Your task to perform on an android device: change timer sound Image 0: 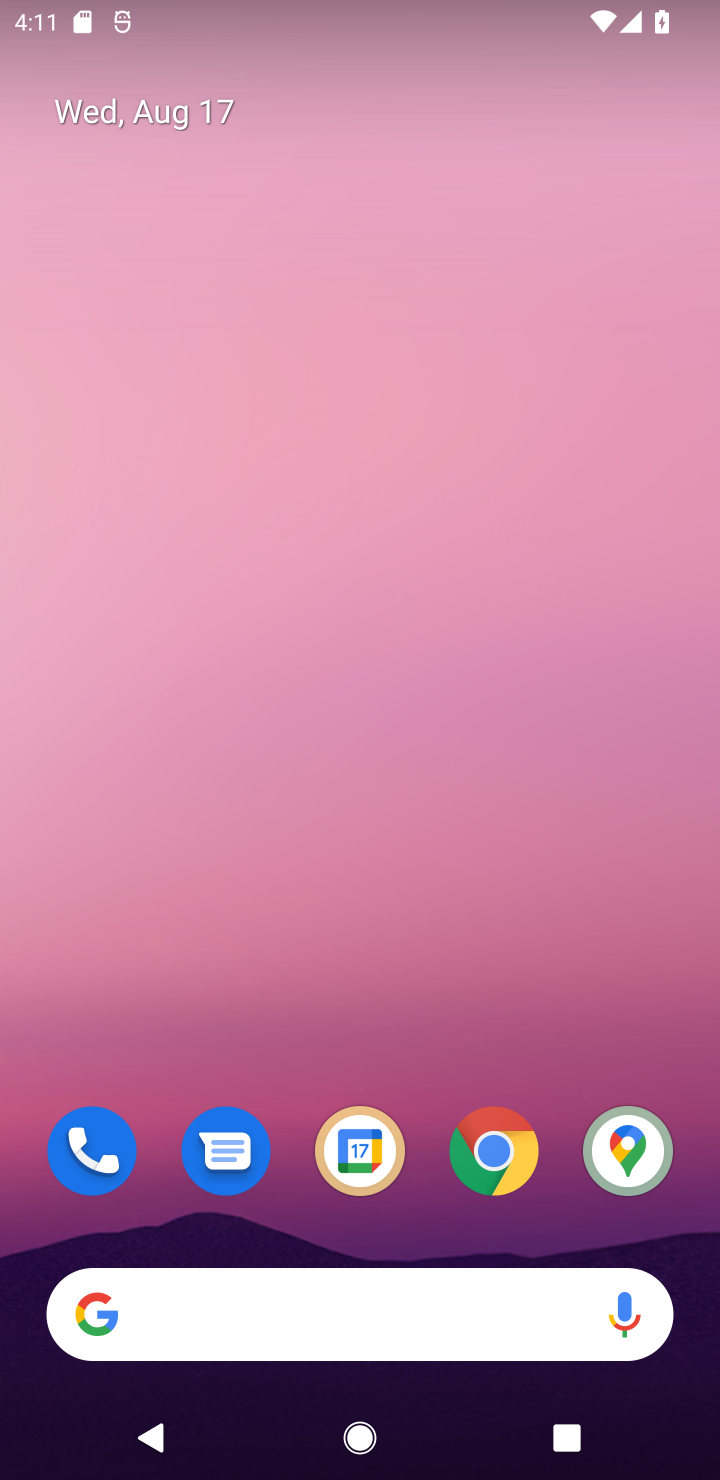
Step 0: drag from (435, 1245) to (373, 399)
Your task to perform on an android device: change timer sound Image 1: 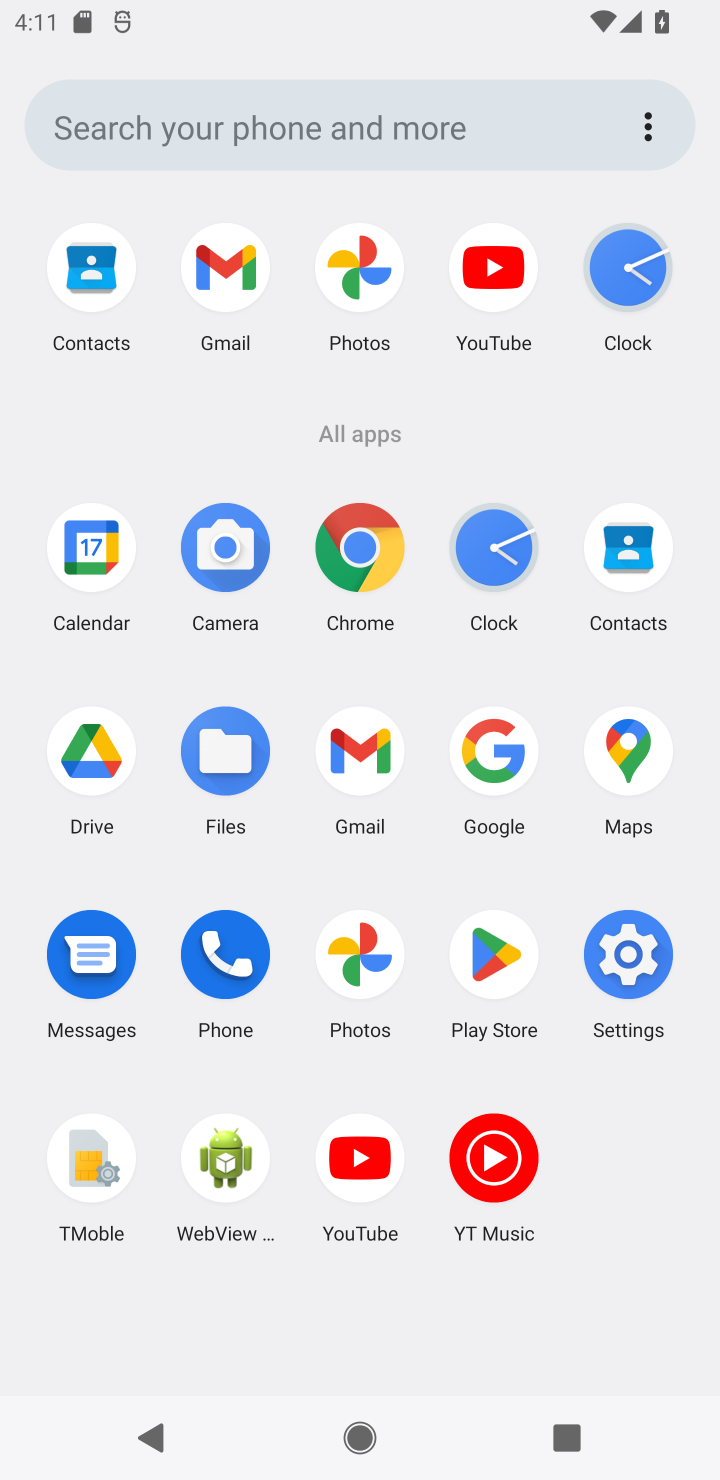
Step 1: click (480, 589)
Your task to perform on an android device: change timer sound Image 2: 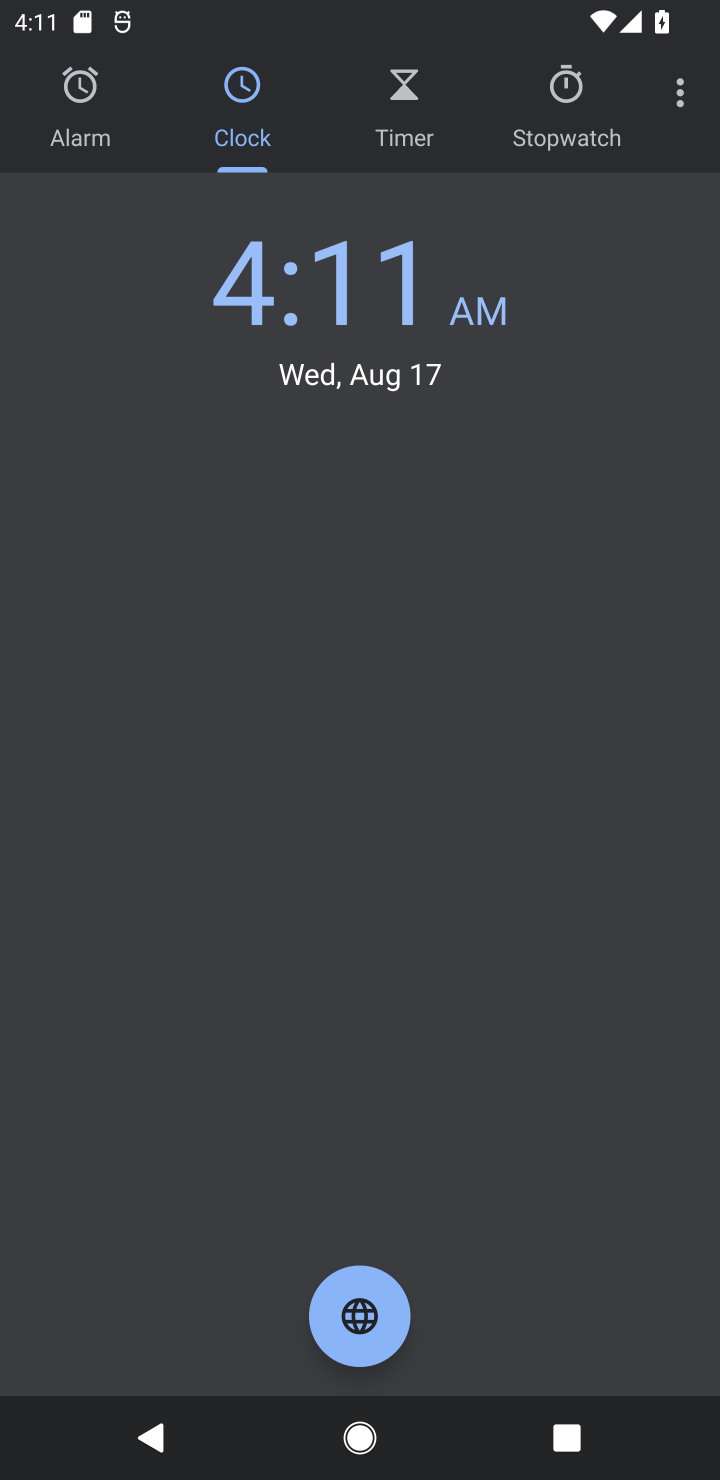
Step 2: click (400, 109)
Your task to perform on an android device: change timer sound Image 3: 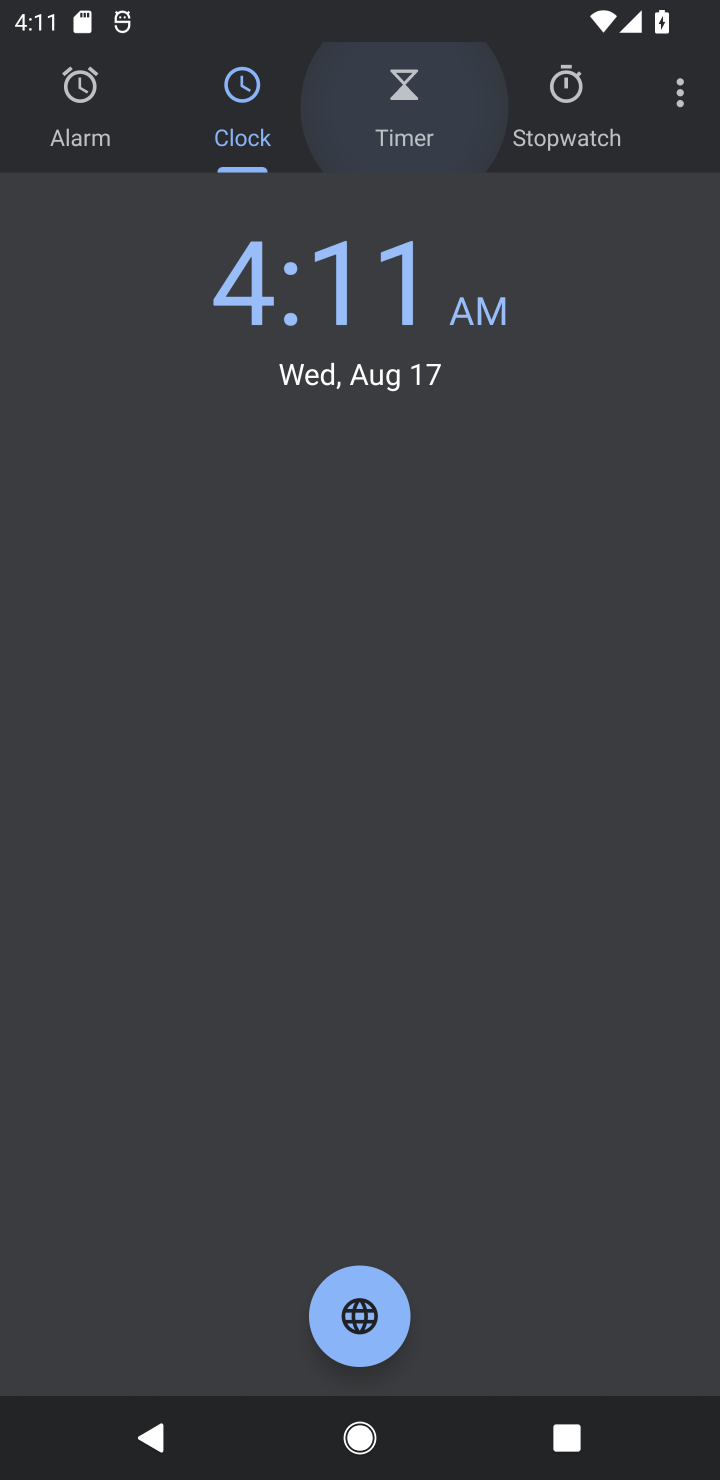
Step 3: click (689, 98)
Your task to perform on an android device: change timer sound Image 4: 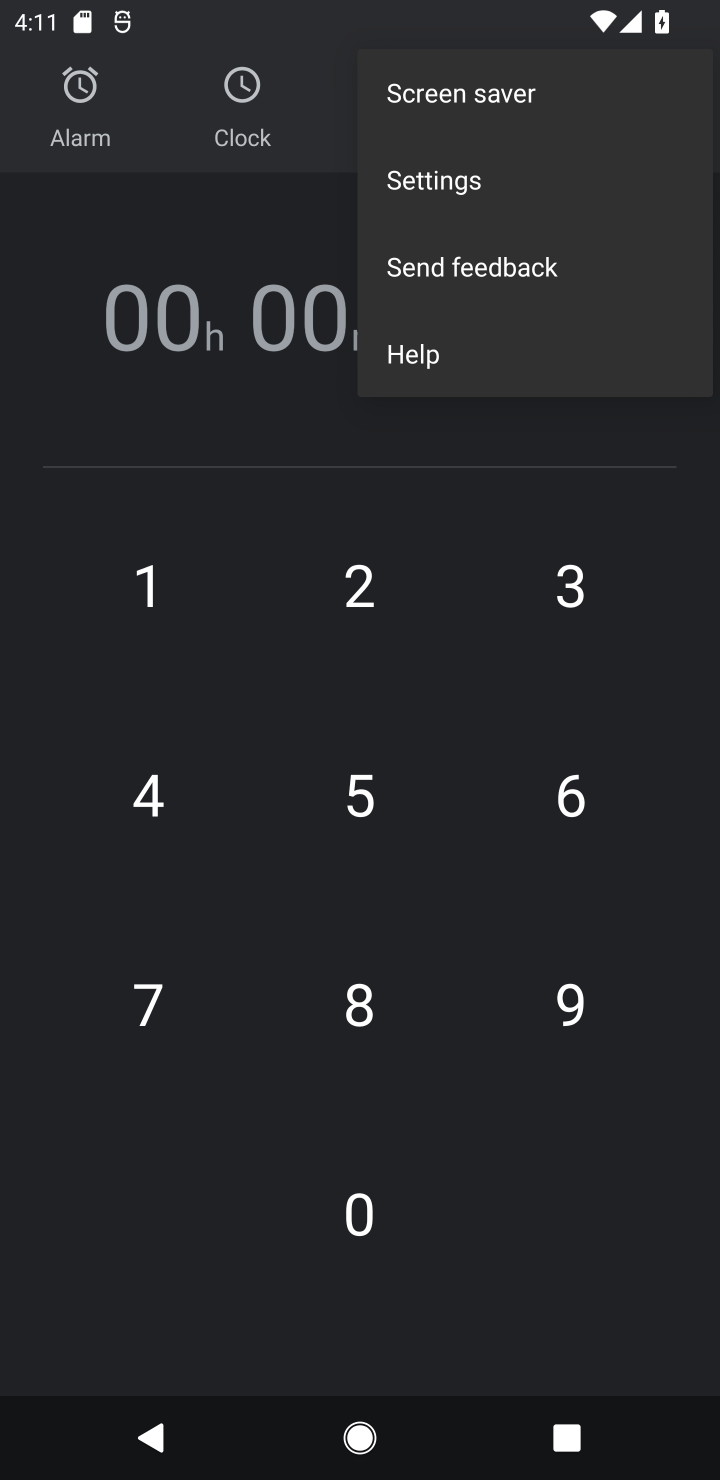
Step 4: click (474, 200)
Your task to perform on an android device: change timer sound Image 5: 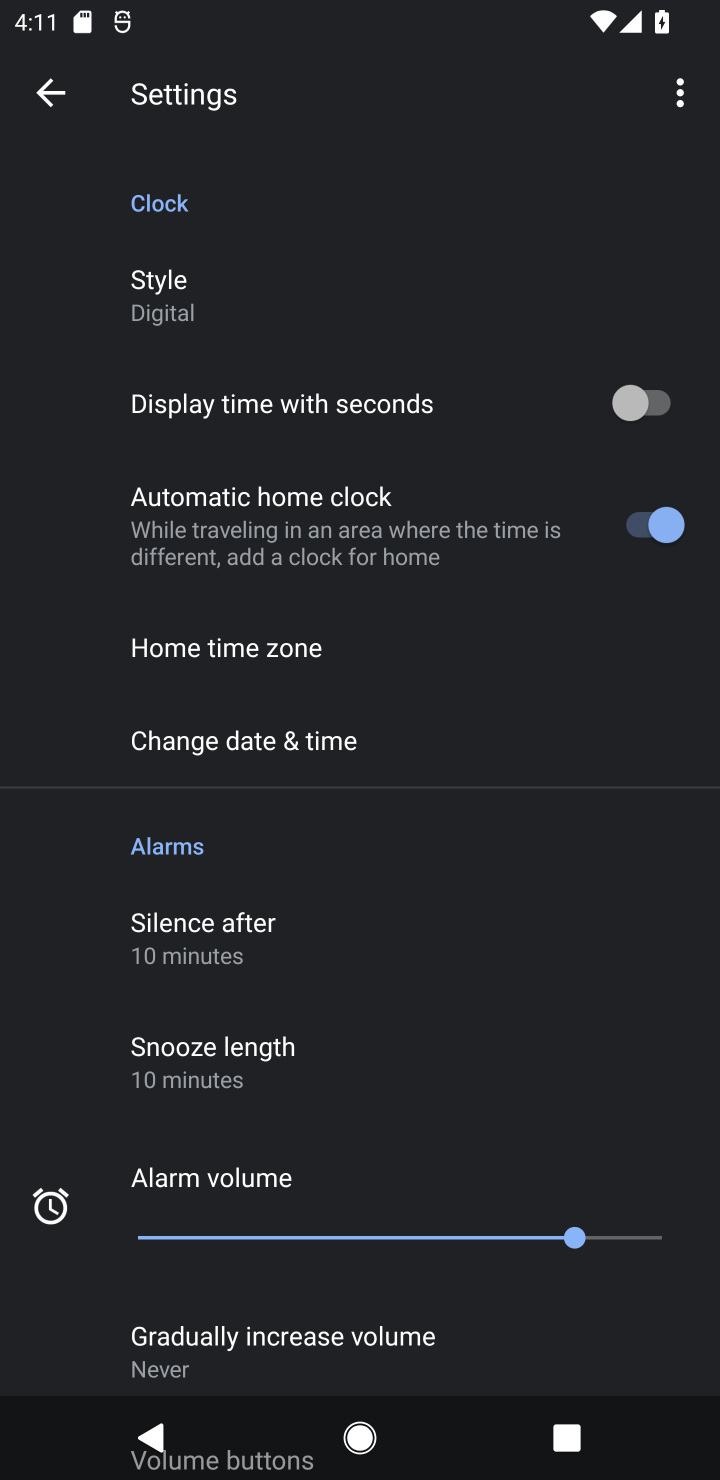
Step 5: drag from (266, 1124) to (306, 520)
Your task to perform on an android device: change timer sound Image 6: 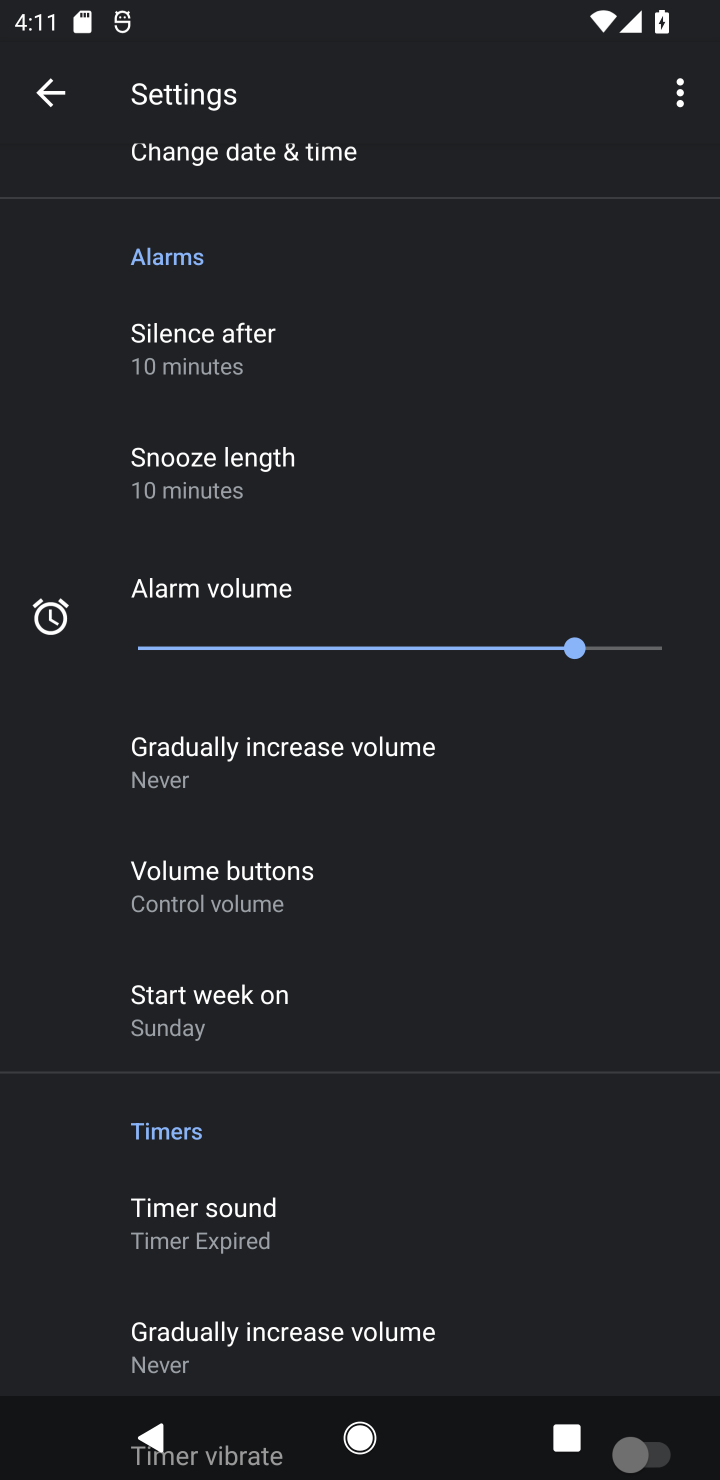
Step 6: click (196, 1189)
Your task to perform on an android device: change timer sound Image 7: 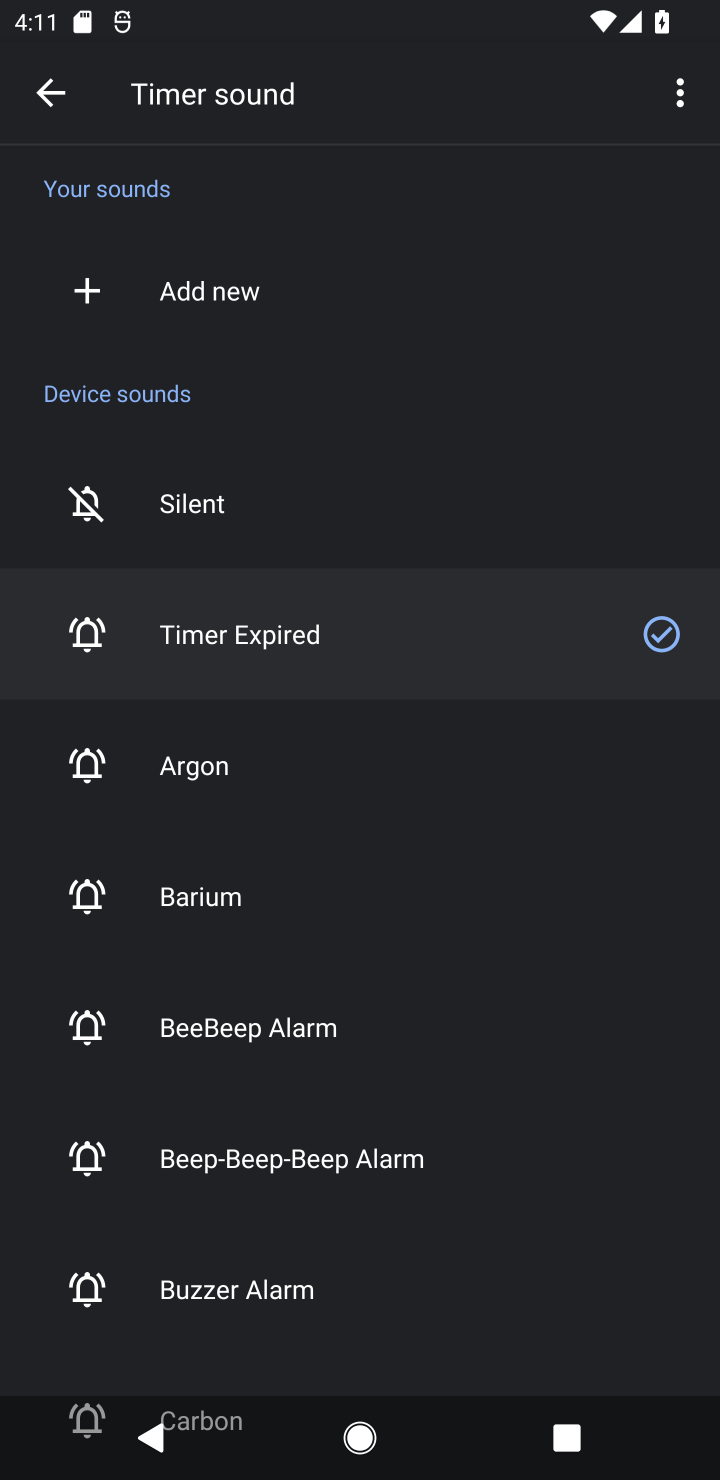
Step 7: click (407, 780)
Your task to perform on an android device: change timer sound Image 8: 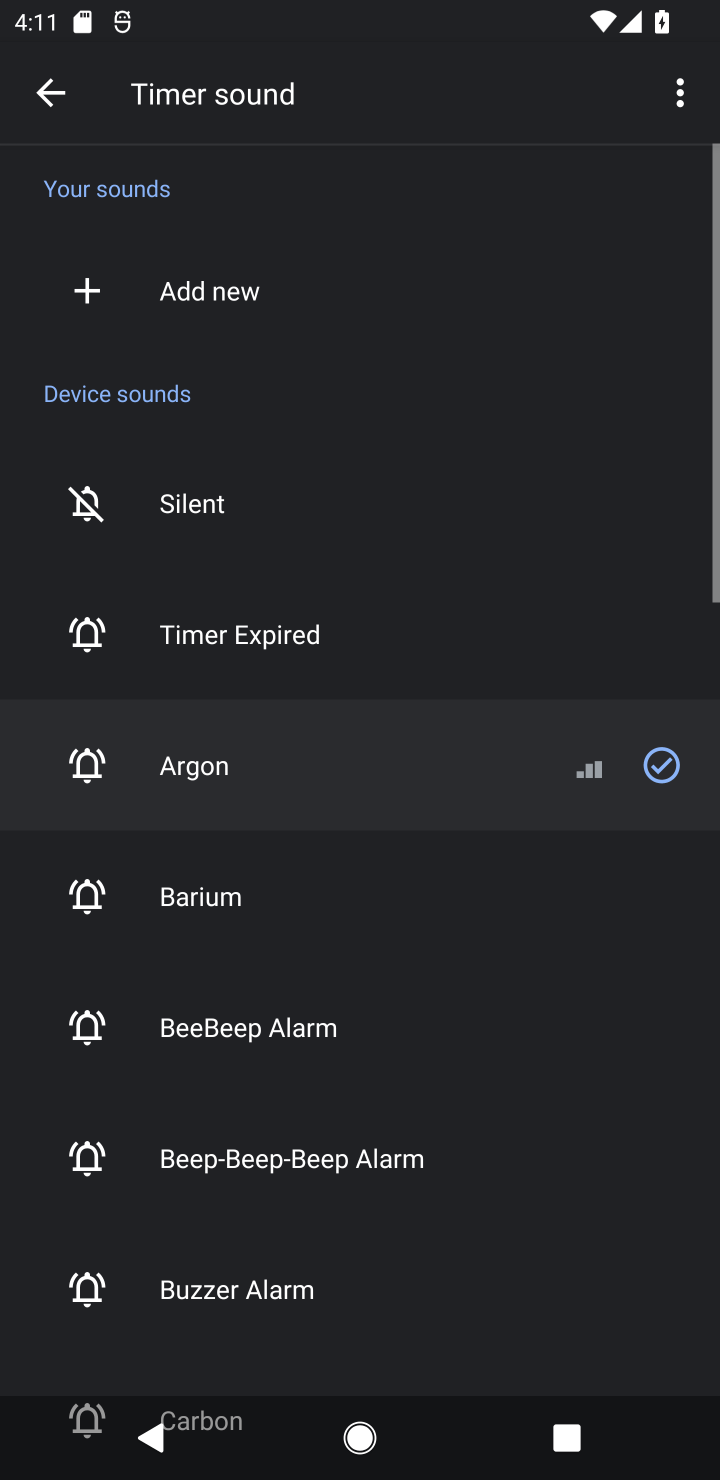
Step 8: task complete